Your task to perform on an android device: Show me productivity apps on the Play Store Image 0: 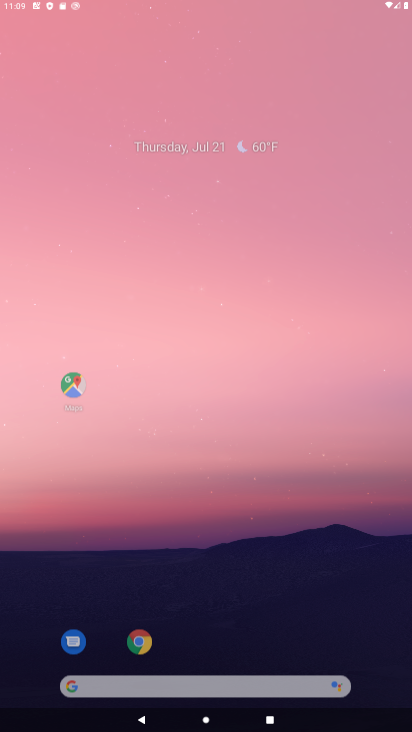
Step 0: click (234, 34)
Your task to perform on an android device: Show me productivity apps on the Play Store Image 1: 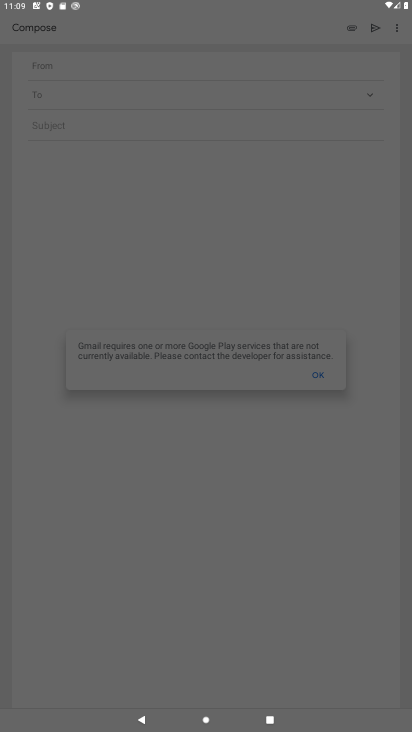
Step 1: press home button
Your task to perform on an android device: Show me productivity apps on the Play Store Image 2: 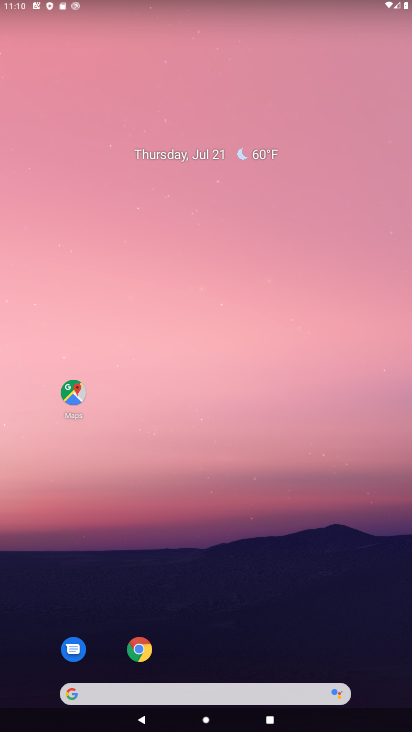
Step 2: drag from (72, 660) to (165, 289)
Your task to perform on an android device: Show me productivity apps on the Play Store Image 3: 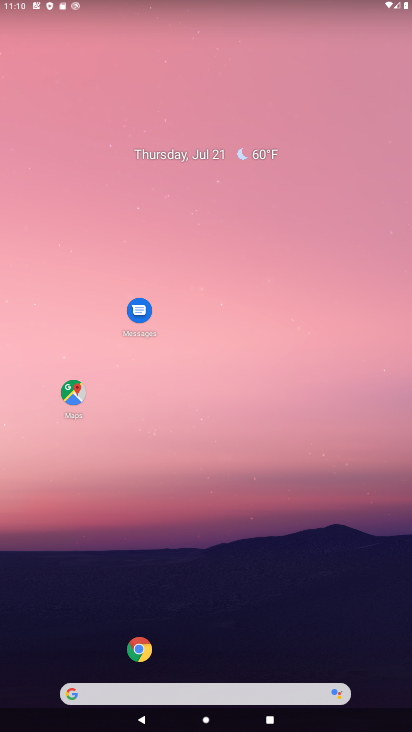
Step 3: drag from (245, 55) to (402, 159)
Your task to perform on an android device: Show me productivity apps on the Play Store Image 4: 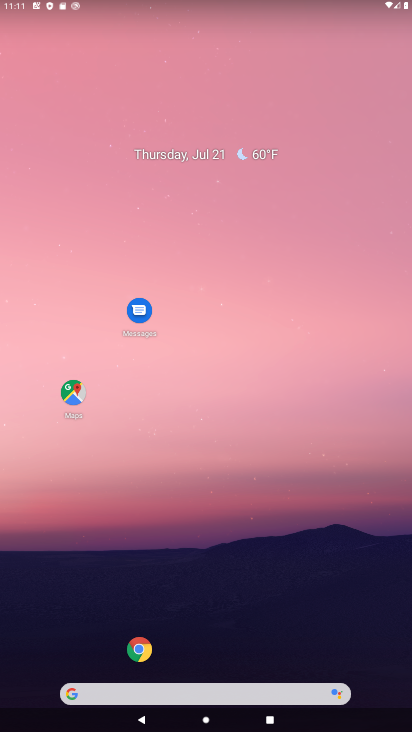
Step 4: drag from (81, 627) to (185, 104)
Your task to perform on an android device: Show me productivity apps on the Play Store Image 5: 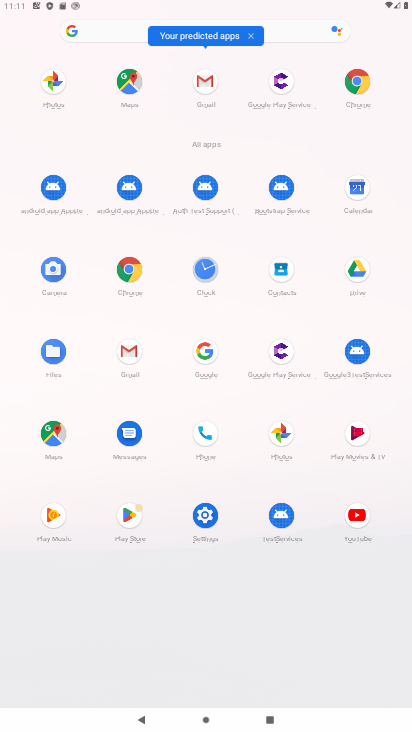
Step 5: click (141, 516)
Your task to perform on an android device: Show me productivity apps on the Play Store Image 6: 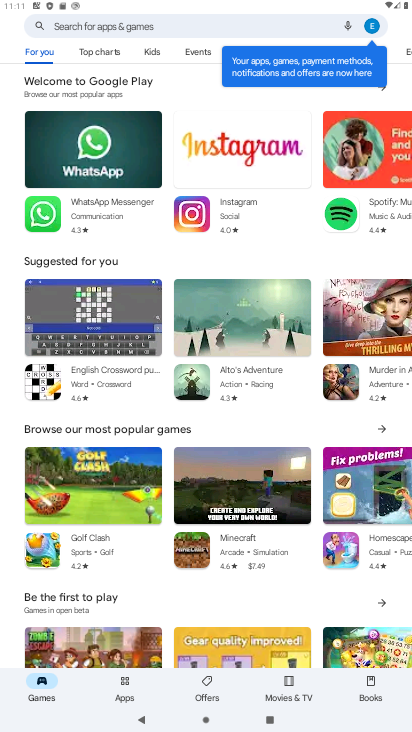
Step 6: click (74, 23)
Your task to perform on an android device: Show me productivity apps on the Play Store Image 7: 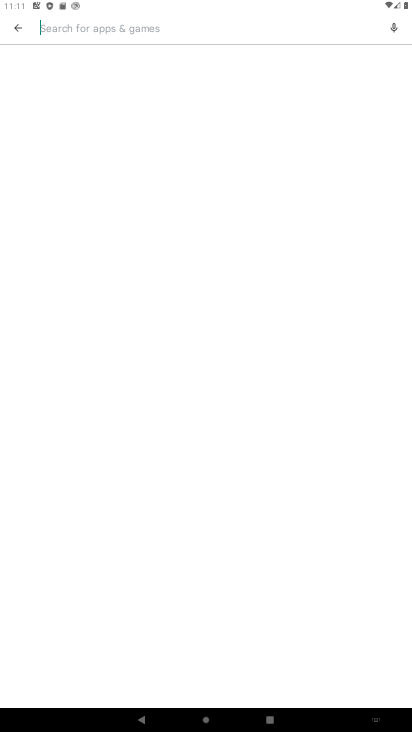
Step 7: type "productivity apps "
Your task to perform on an android device: Show me productivity apps on the Play Store Image 8: 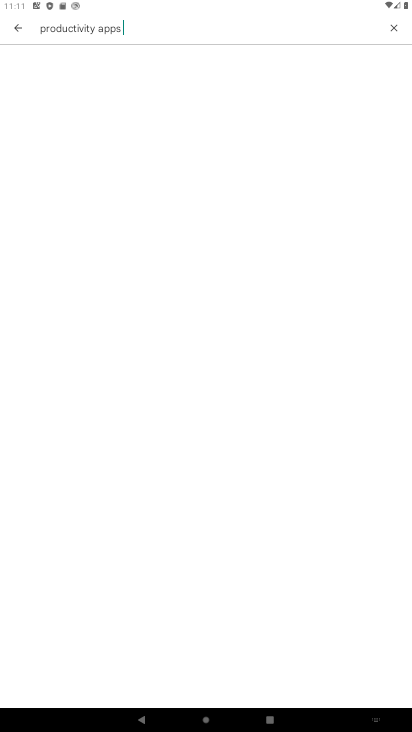
Step 8: type ""
Your task to perform on an android device: Show me productivity apps on the Play Store Image 9: 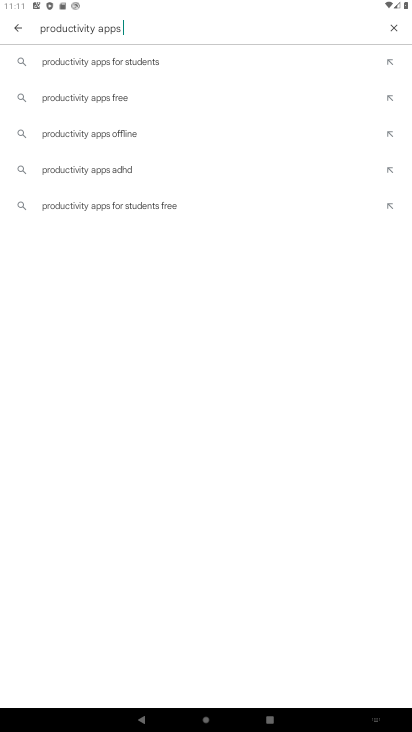
Step 9: type ""
Your task to perform on an android device: Show me productivity apps on the Play Store Image 10: 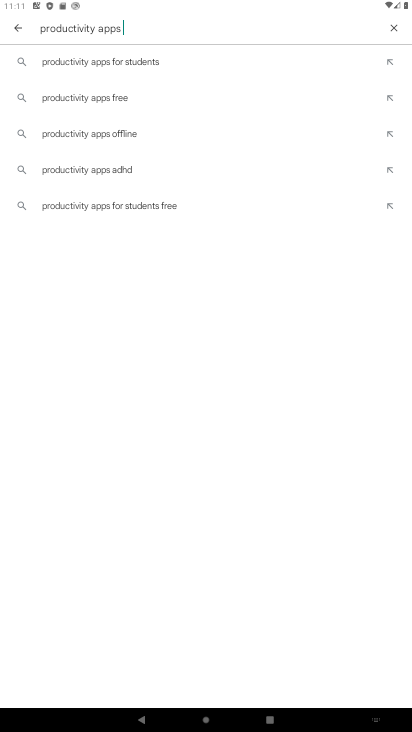
Step 10: task complete